Your task to perform on an android device: turn on priority inbox in the gmail app Image 0: 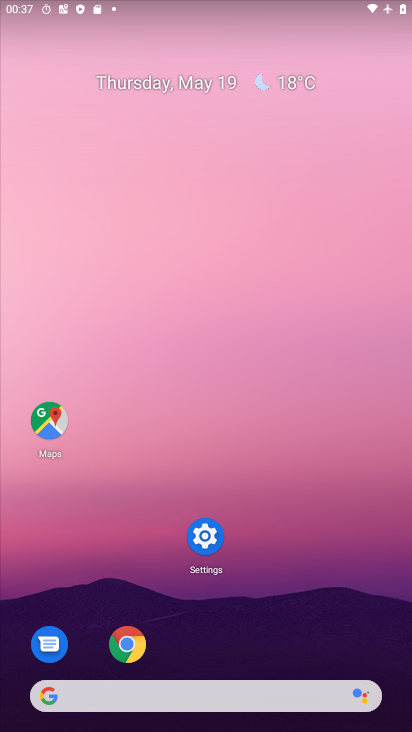
Step 0: drag from (312, 598) to (282, 150)
Your task to perform on an android device: turn on priority inbox in the gmail app Image 1: 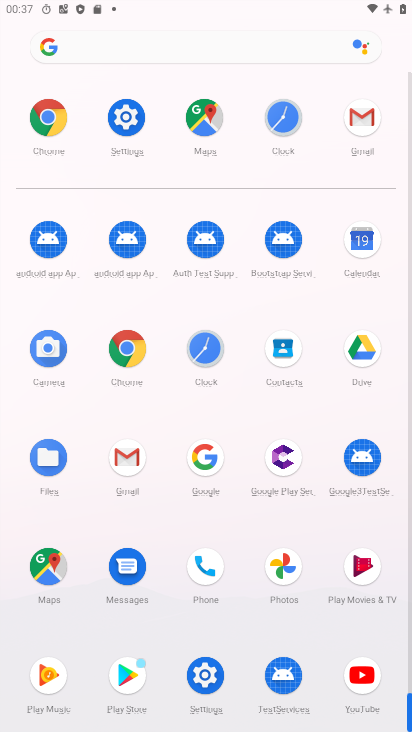
Step 1: click (128, 456)
Your task to perform on an android device: turn on priority inbox in the gmail app Image 2: 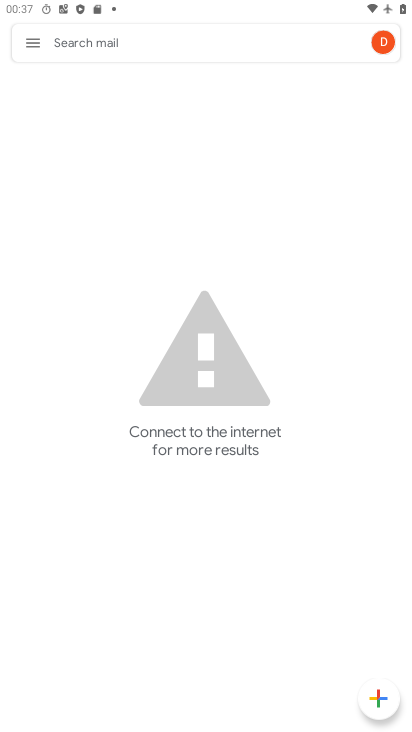
Step 2: click (44, 37)
Your task to perform on an android device: turn on priority inbox in the gmail app Image 3: 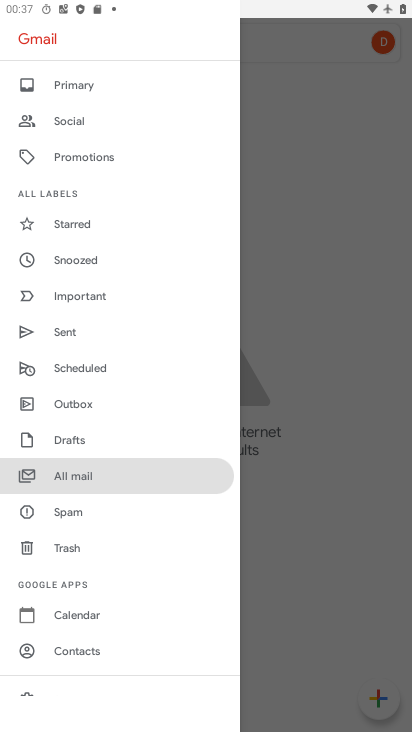
Step 3: drag from (116, 648) to (145, 349)
Your task to perform on an android device: turn on priority inbox in the gmail app Image 4: 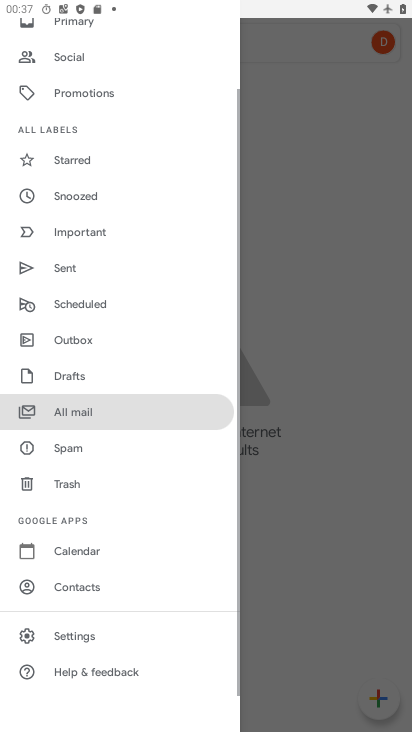
Step 4: click (77, 635)
Your task to perform on an android device: turn on priority inbox in the gmail app Image 5: 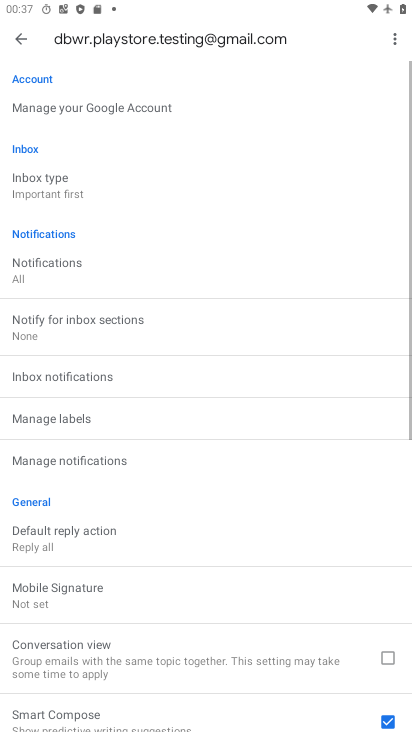
Step 5: drag from (91, 617) to (152, 588)
Your task to perform on an android device: turn on priority inbox in the gmail app Image 6: 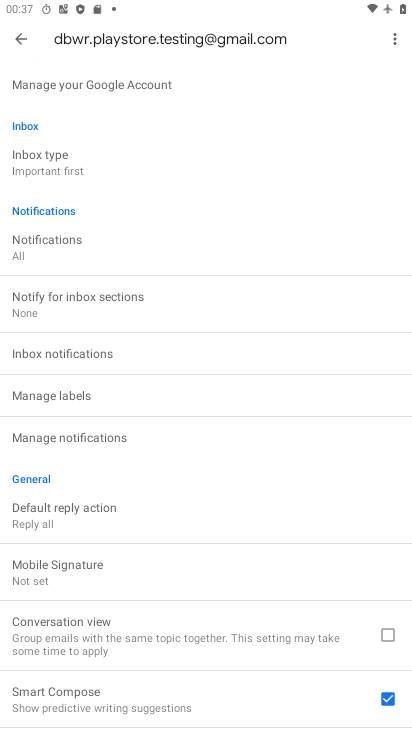
Step 6: click (52, 166)
Your task to perform on an android device: turn on priority inbox in the gmail app Image 7: 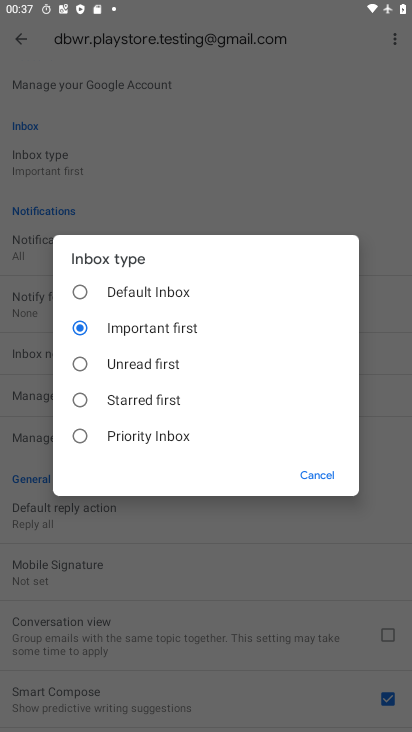
Step 7: task complete